Your task to perform on an android device: turn notification dots on Image 0: 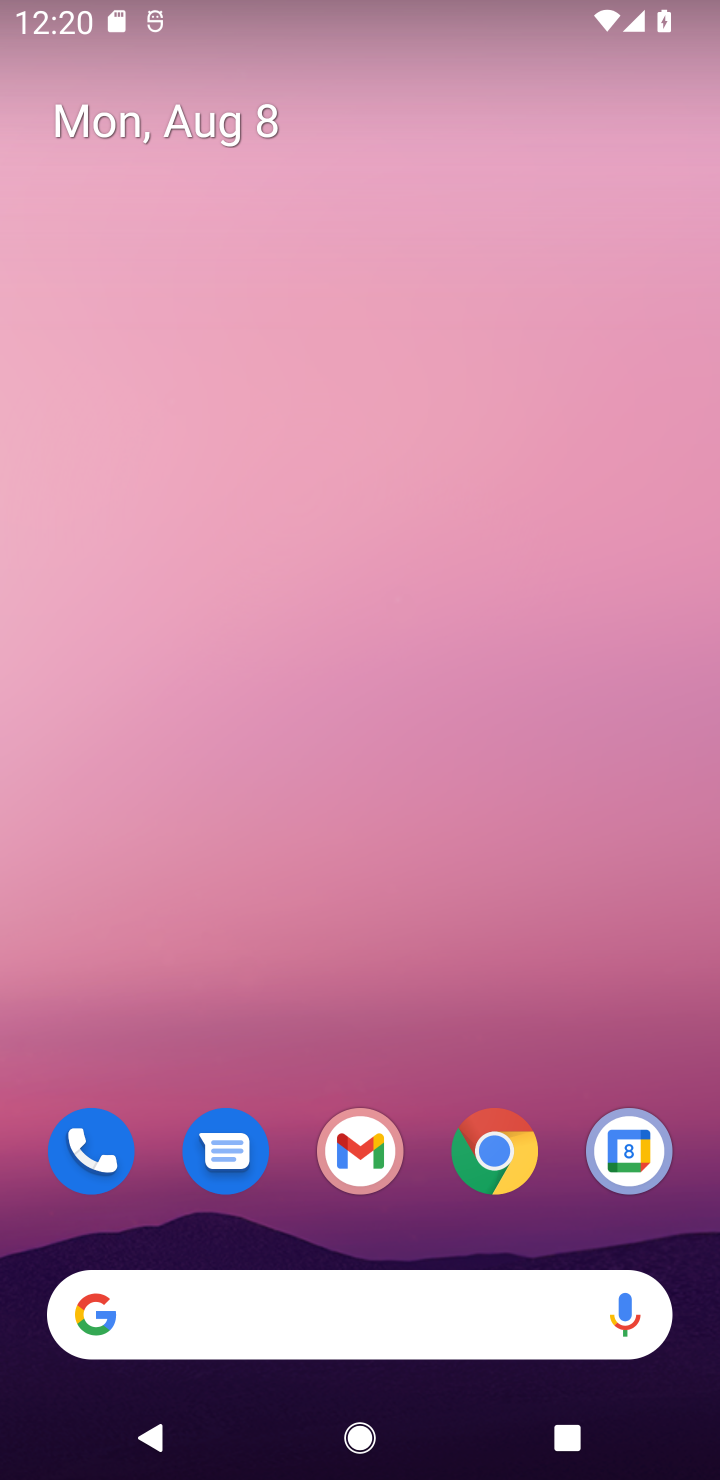
Step 0: drag from (430, 1167) to (316, 450)
Your task to perform on an android device: turn notification dots on Image 1: 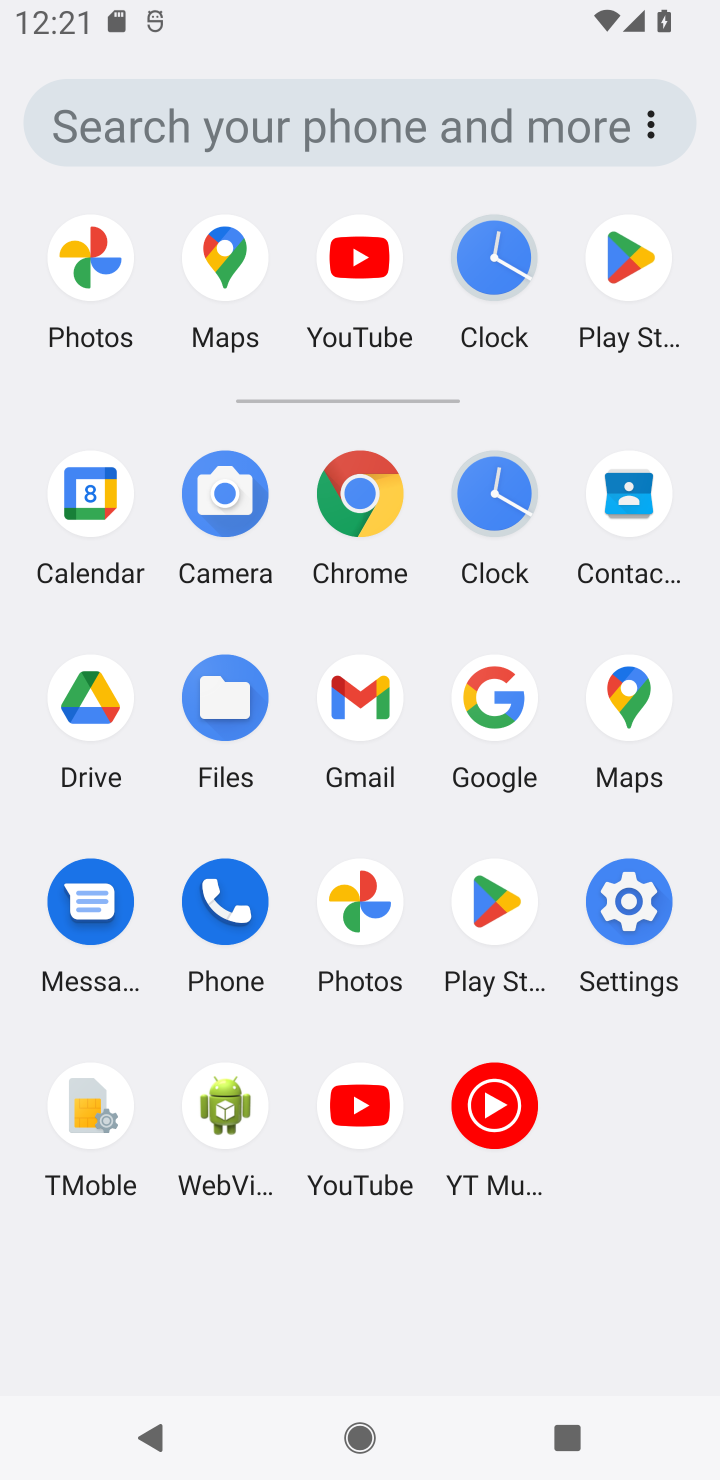
Step 1: click (599, 892)
Your task to perform on an android device: turn notification dots on Image 2: 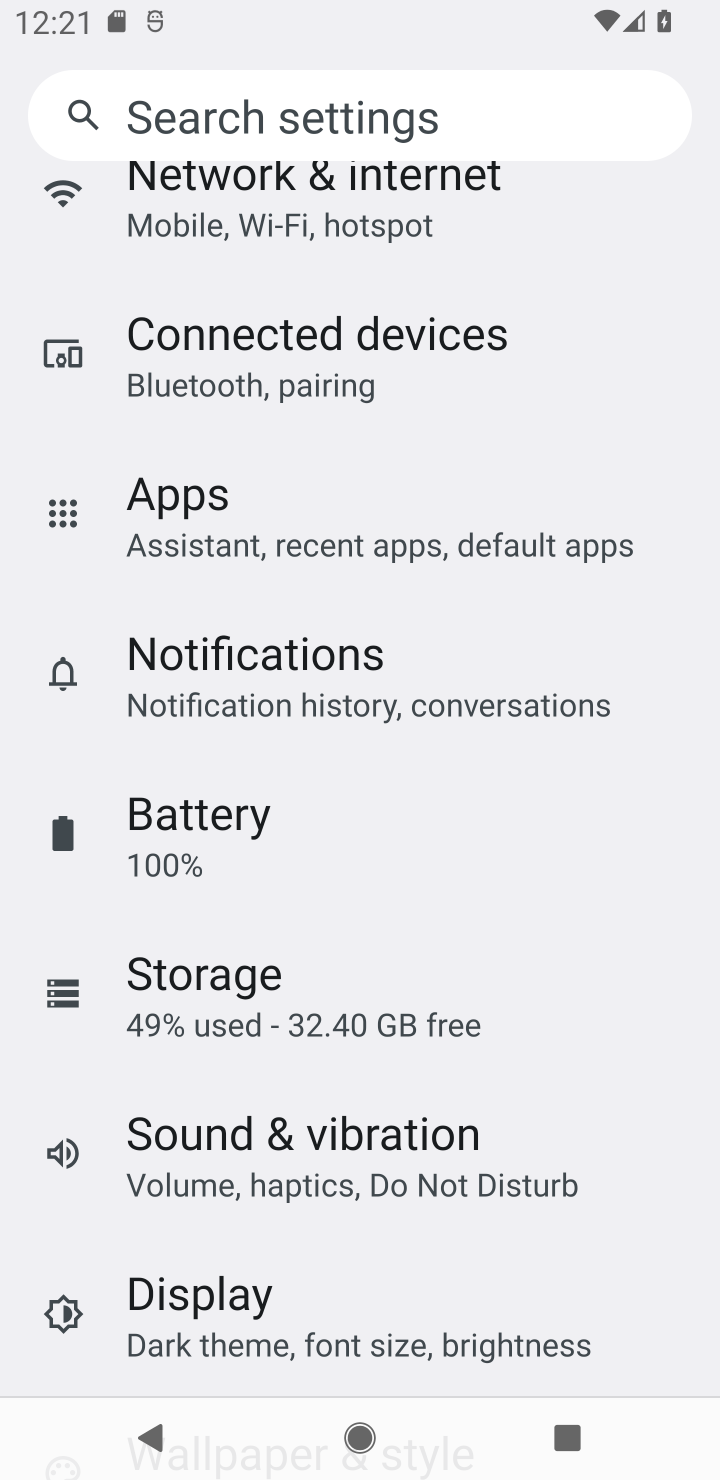
Step 2: drag from (248, 119) to (305, 715)
Your task to perform on an android device: turn notification dots on Image 3: 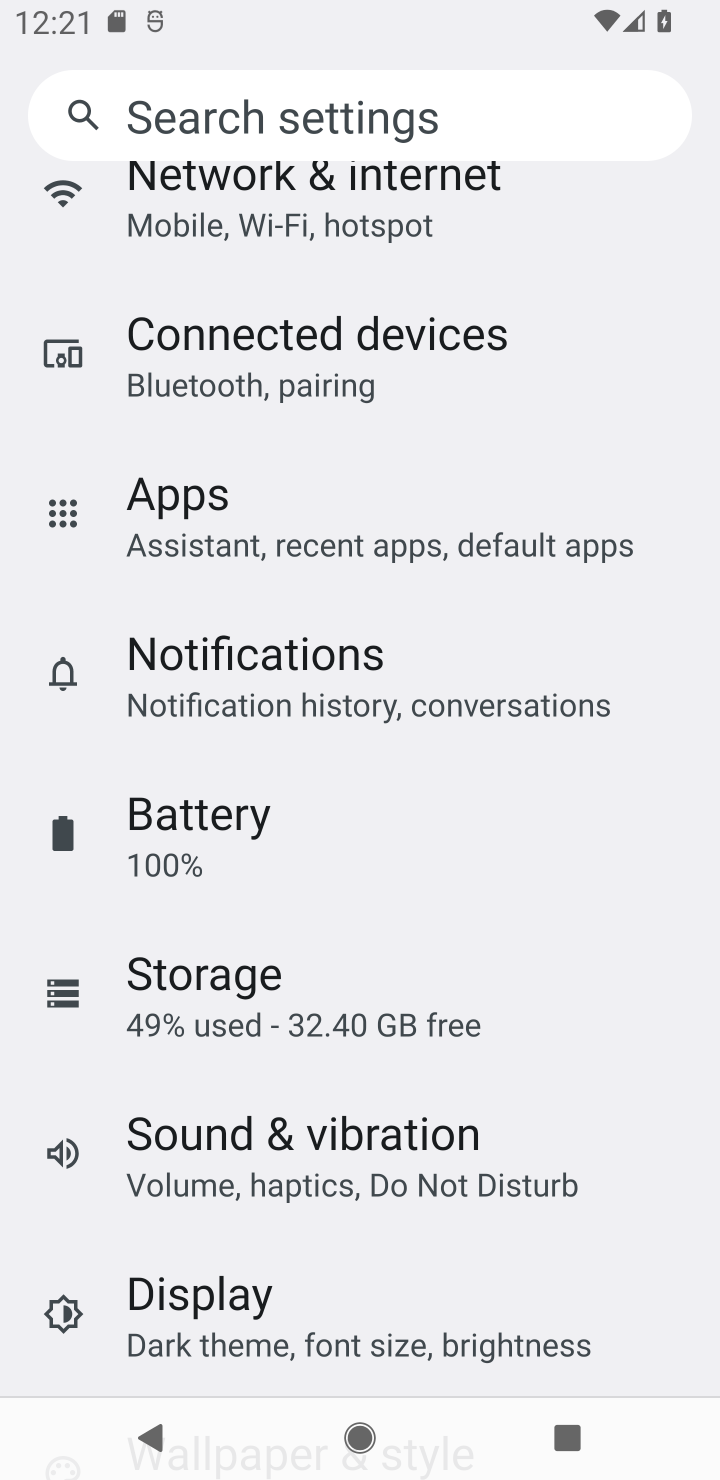
Step 3: click (222, 656)
Your task to perform on an android device: turn notification dots on Image 4: 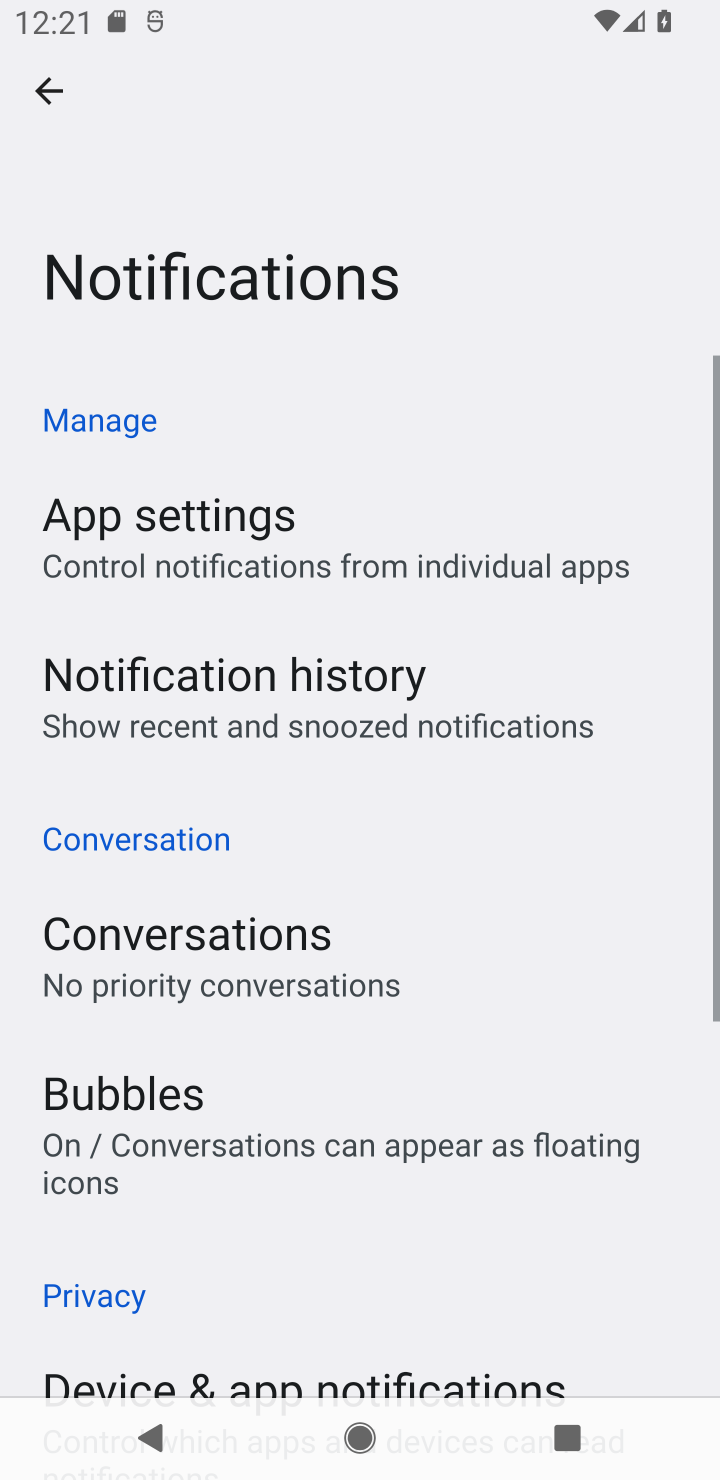
Step 4: drag from (329, 1279) to (219, 481)
Your task to perform on an android device: turn notification dots on Image 5: 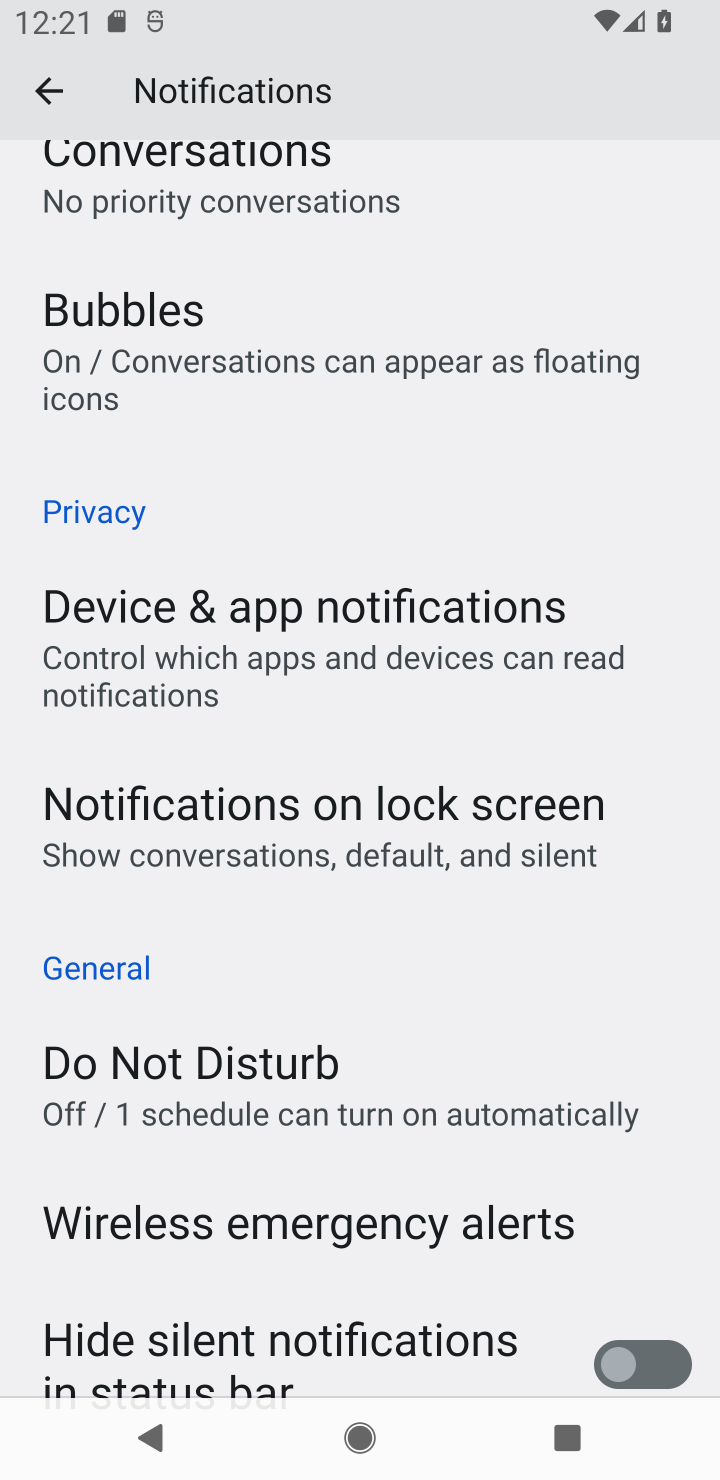
Step 5: drag from (493, 1238) to (305, 568)
Your task to perform on an android device: turn notification dots on Image 6: 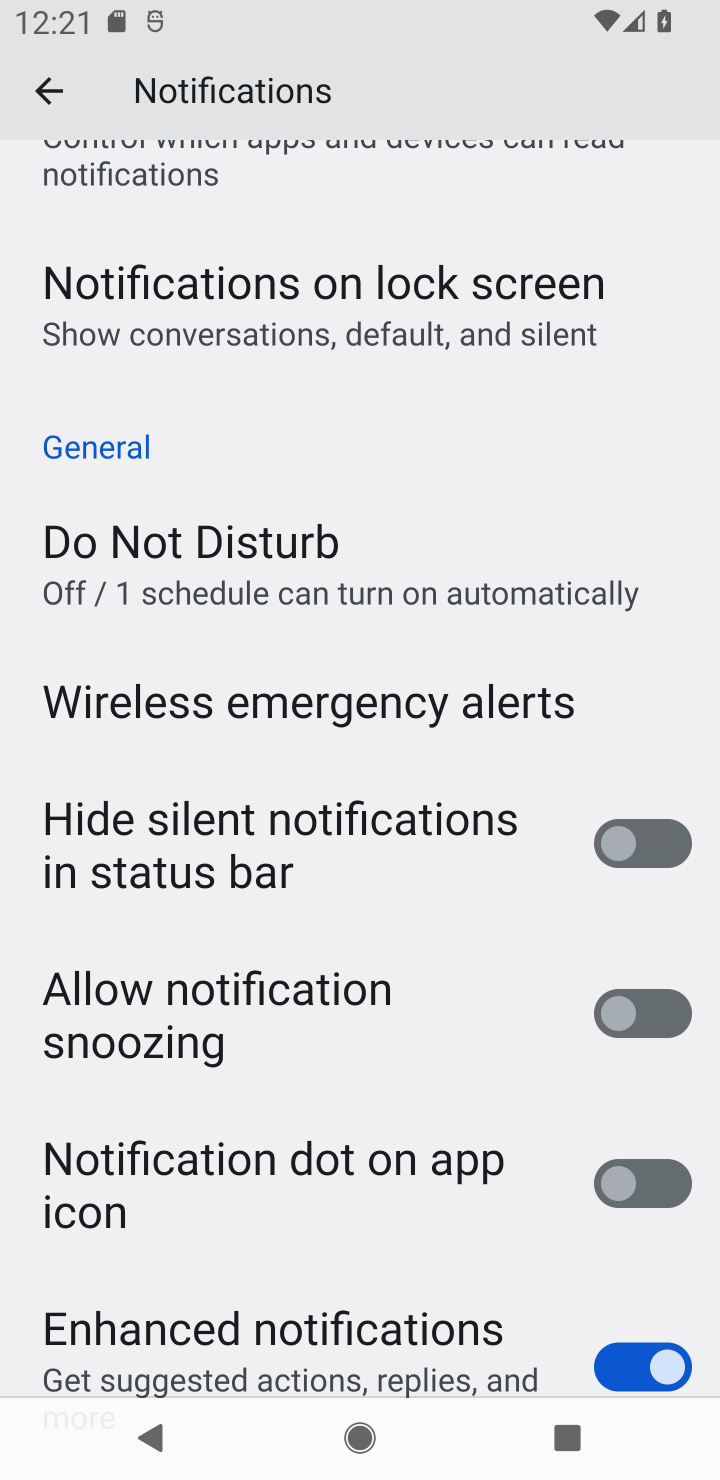
Step 6: drag from (524, 1267) to (311, 583)
Your task to perform on an android device: turn notification dots on Image 7: 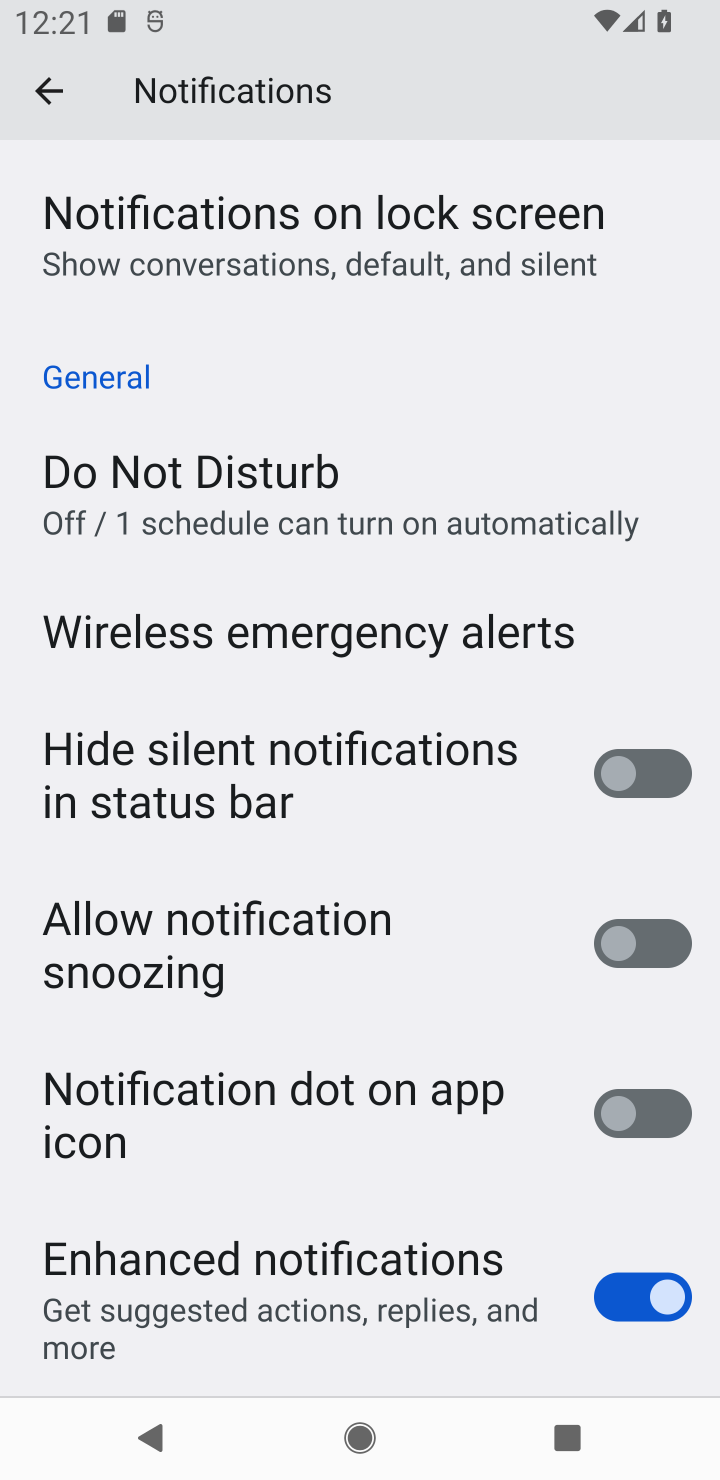
Step 7: click (627, 1115)
Your task to perform on an android device: turn notification dots on Image 8: 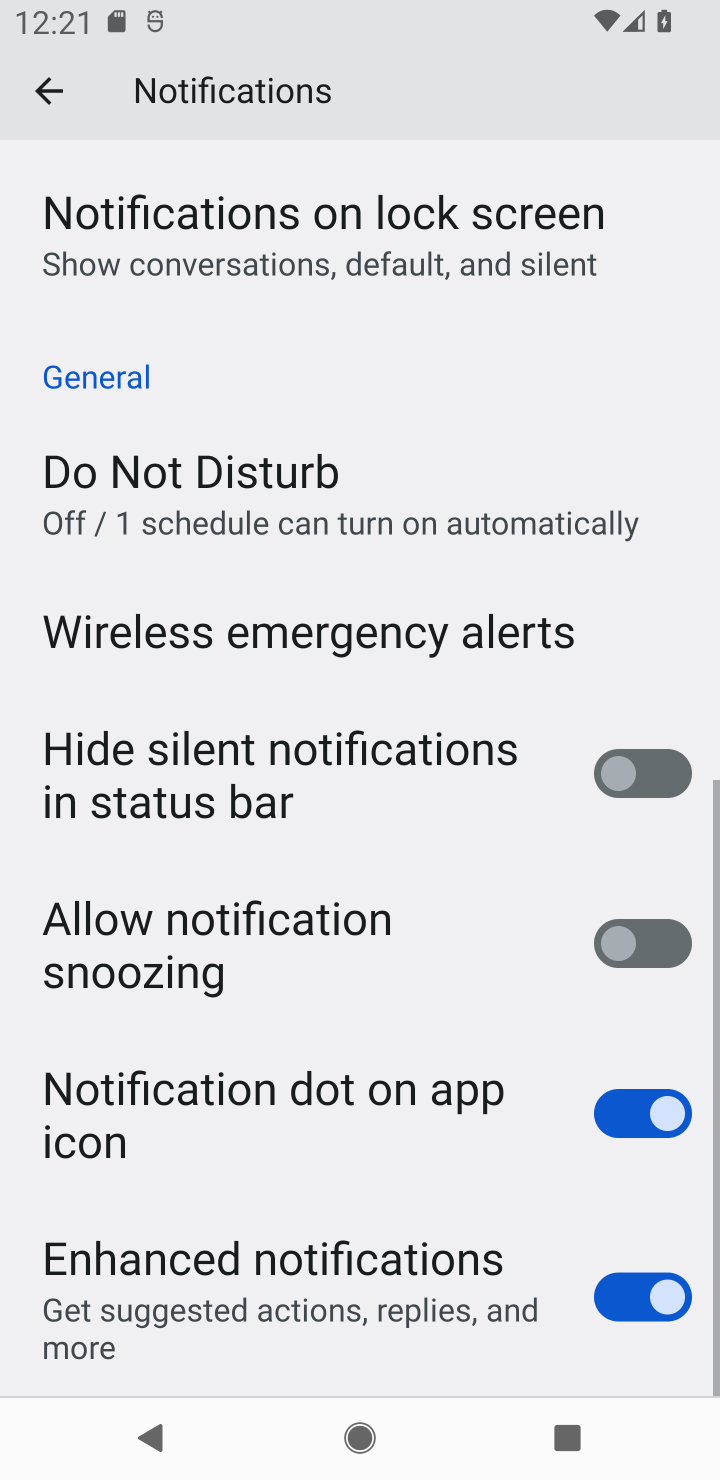
Step 8: task complete